Your task to perform on an android device: Go to settings Image 0: 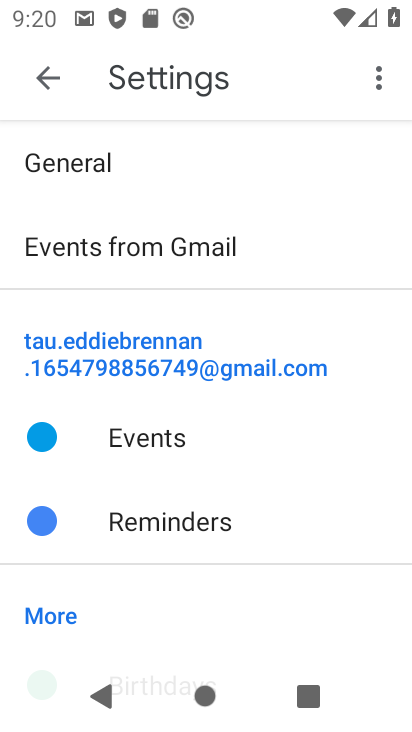
Step 0: press back button
Your task to perform on an android device: Go to settings Image 1: 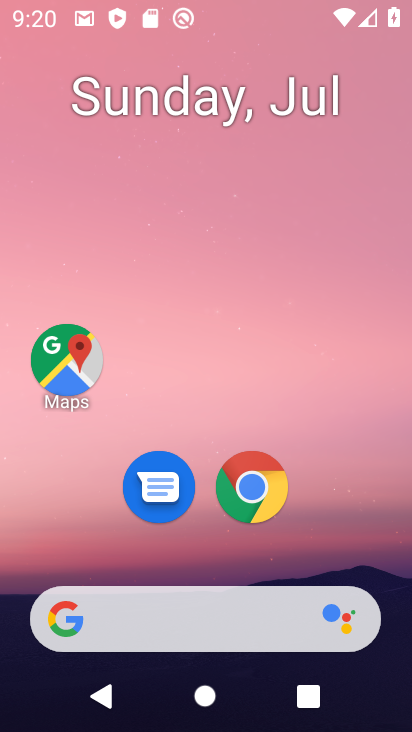
Step 1: press back button
Your task to perform on an android device: Go to settings Image 2: 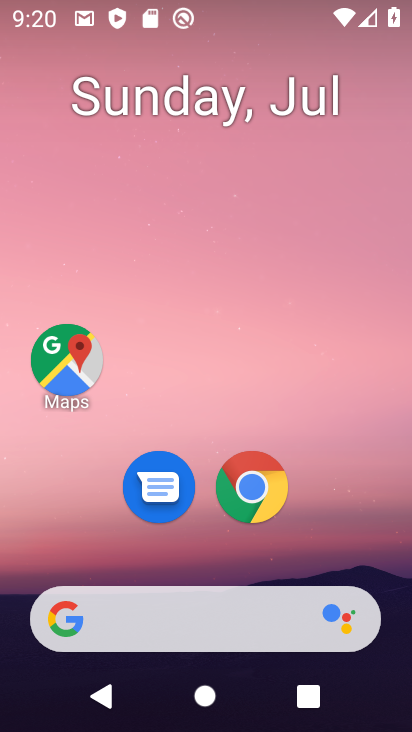
Step 2: drag from (198, 520) to (273, 9)
Your task to perform on an android device: Go to settings Image 3: 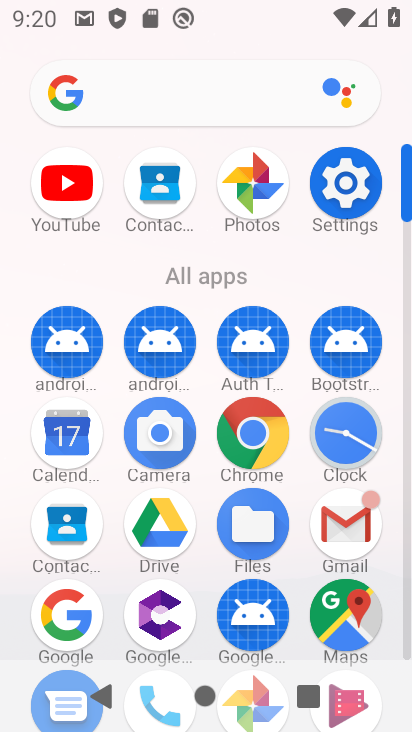
Step 3: click (341, 168)
Your task to perform on an android device: Go to settings Image 4: 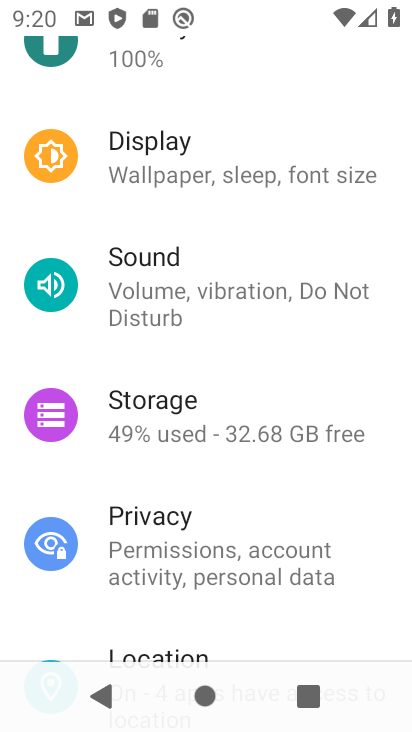
Step 4: task complete